Your task to perform on an android device: turn off notifications in google photos Image 0: 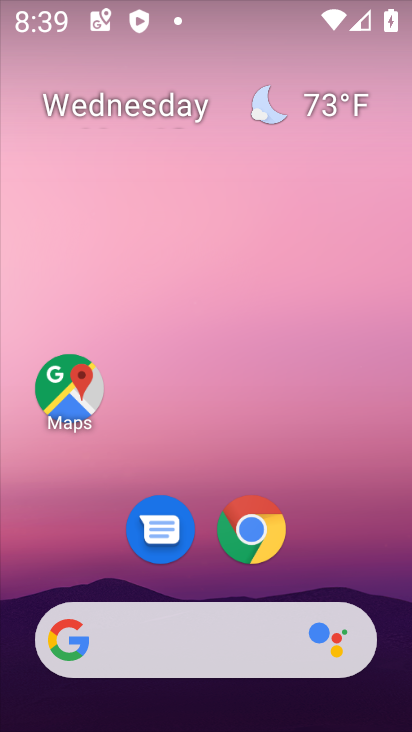
Step 0: drag from (382, 524) to (376, 261)
Your task to perform on an android device: turn off notifications in google photos Image 1: 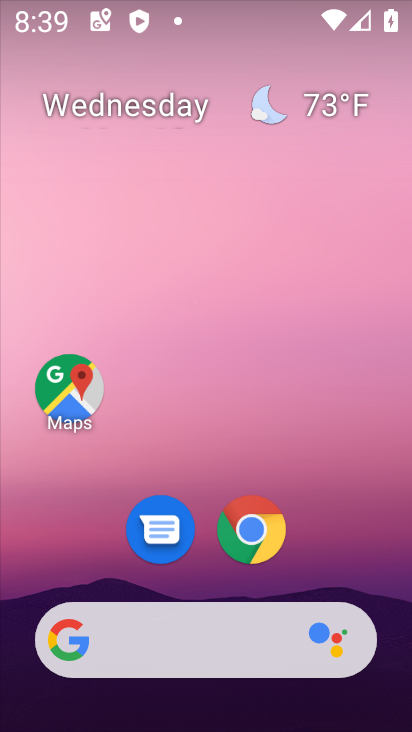
Step 1: drag from (381, 531) to (376, 234)
Your task to perform on an android device: turn off notifications in google photos Image 2: 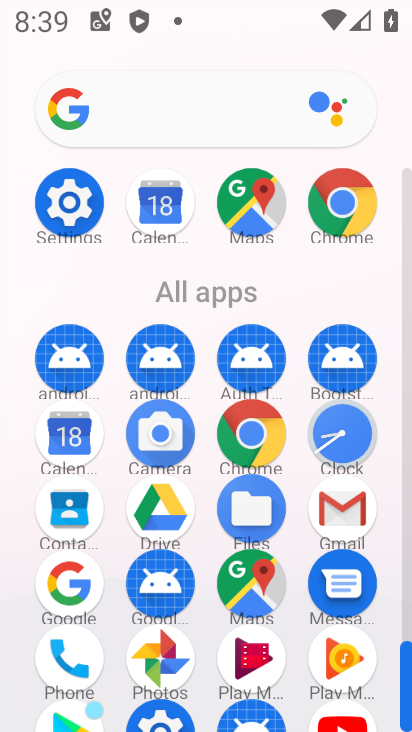
Step 2: drag from (393, 588) to (395, 438)
Your task to perform on an android device: turn off notifications in google photos Image 3: 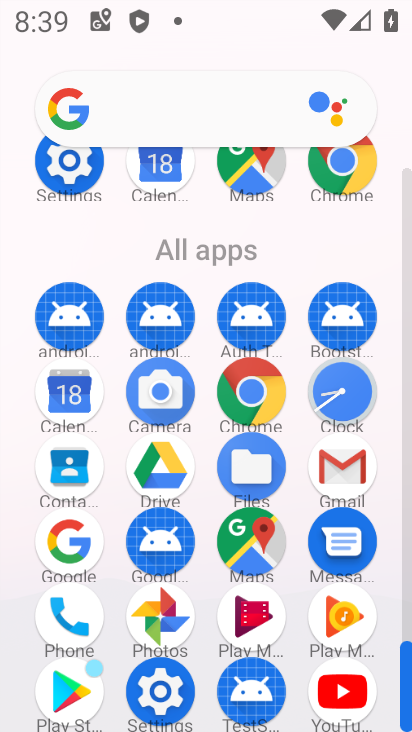
Step 3: click (160, 618)
Your task to perform on an android device: turn off notifications in google photos Image 4: 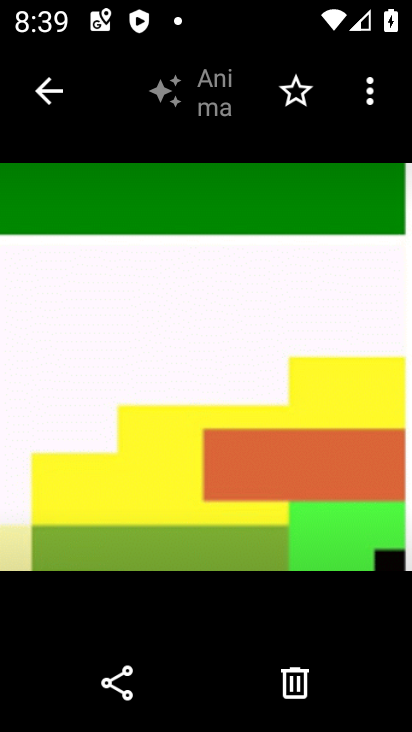
Step 4: click (43, 93)
Your task to perform on an android device: turn off notifications in google photos Image 5: 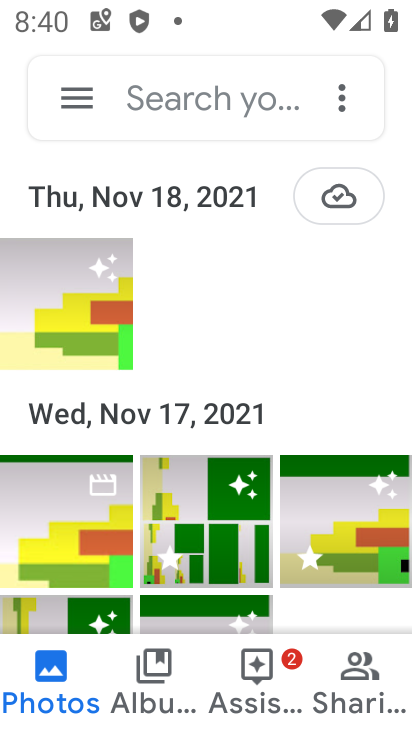
Step 5: click (75, 99)
Your task to perform on an android device: turn off notifications in google photos Image 6: 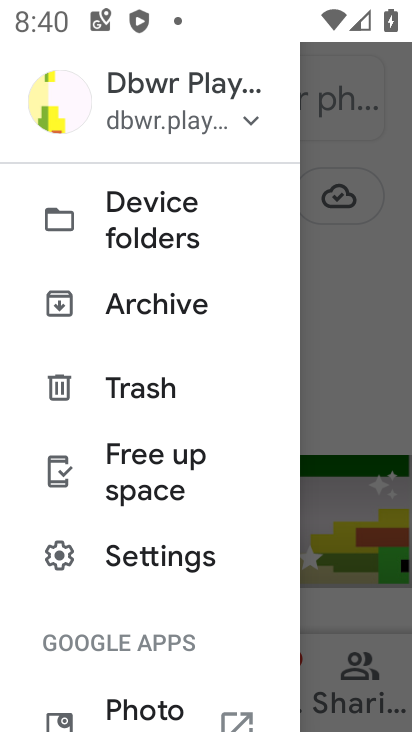
Step 6: drag from (216, 600) to (225, 411)
Your task to perform on an android device: turn off notifications in google photos Image 7: 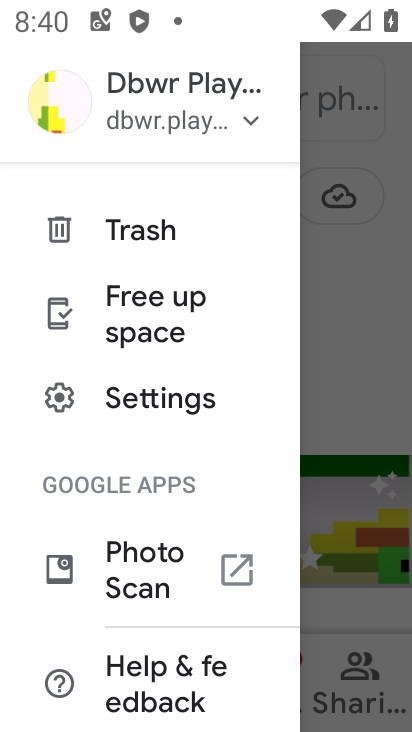
Step 7: drag from (239, 635) to (233, 424)
Your task to perform on an android device: turn off notifications in google photos Image 8: 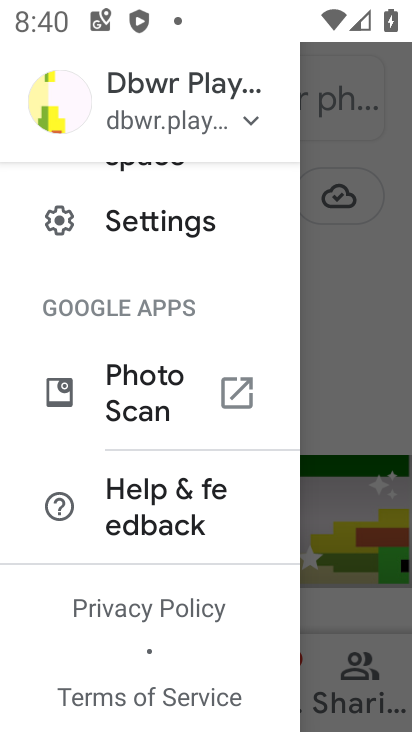
Step 8: drag from (214, 623) to (224, 377)
Your task to perform on an android device: turn off notifications in google photos Image 9: 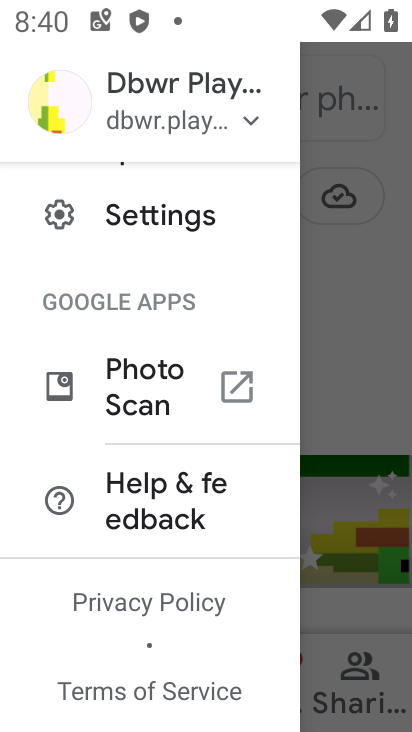
Step 9: drag from (245, 265) to (235, 489)
Your task to perform on an android device: turn off notifications in google photos Image 10: 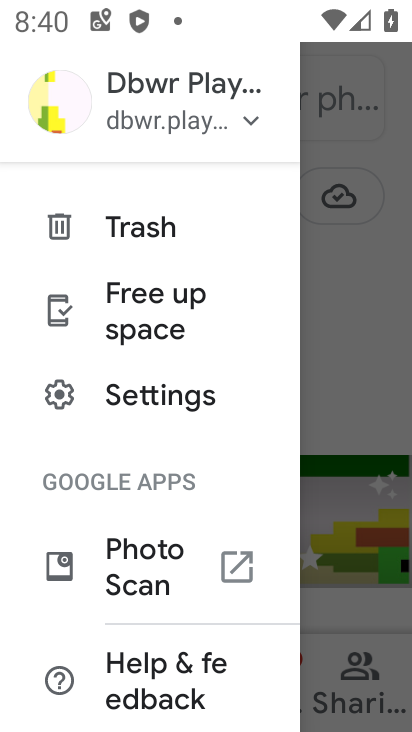
Step 10: drag from (239, 323) to (230, 457)
Your task to perform on an android device: turn off notifications in google photos Image 11: 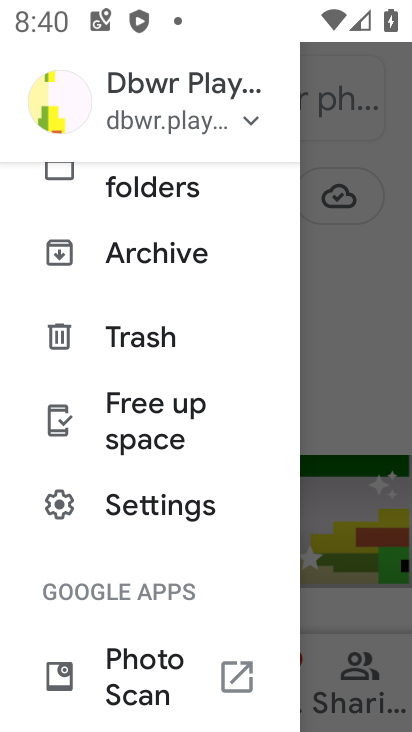
Step 11: click (195, 509)
Your task to perform on an android device: turn off notifications in google photos Image 12: 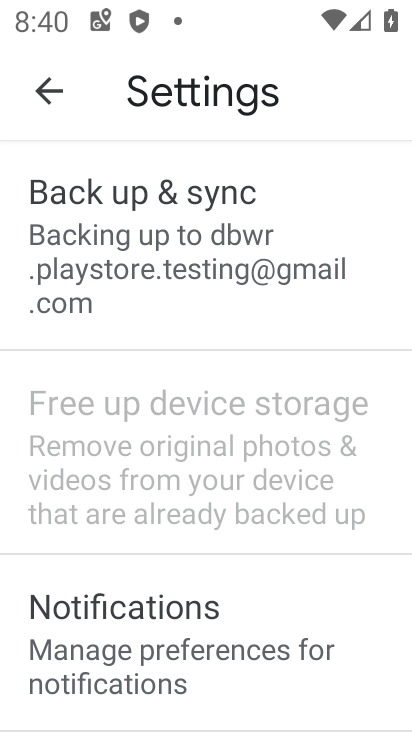
Step 12: drag from (275, 604) to (291, 409)
Your task to perform on an android device: turn off notifications in google photos Image 13: 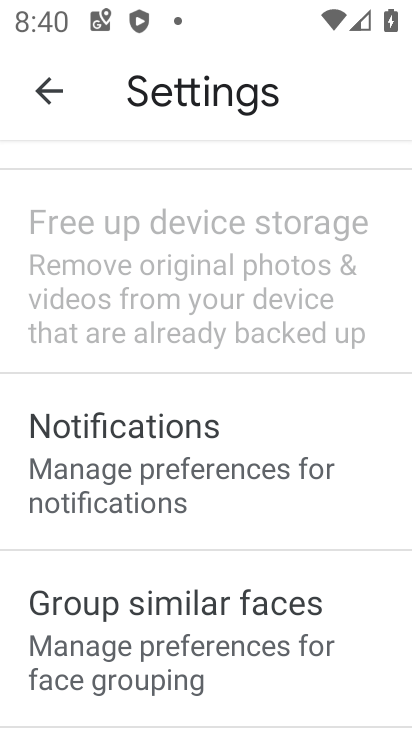
Step 13: click (188, 463)
Your task to perform on an android device: turn off notifications in google photos Image 14: 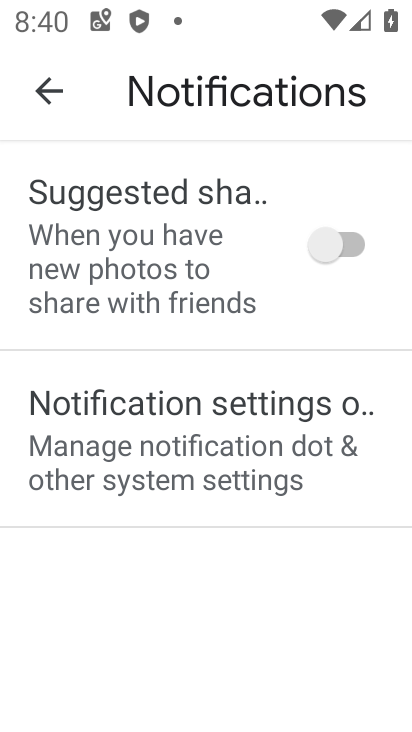
Step 14: click (254, 464)
Your task to perform on an android device: turn off notifications in google photos Image 15: 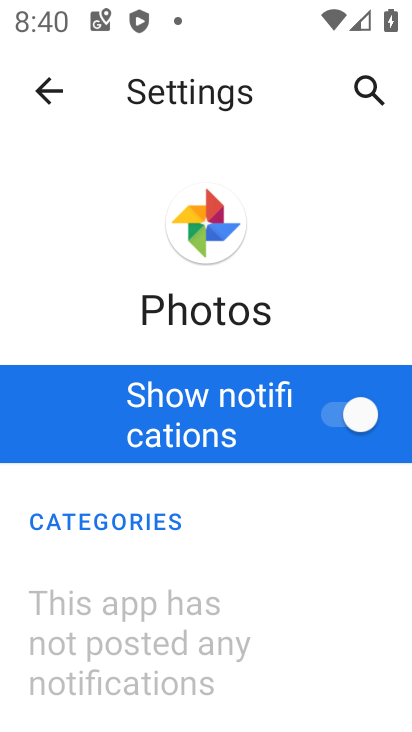
Step 15: drag from (288, 628) to (294, 519)
Your task to perform on an android device: turn off notifications in google photos Image 16: 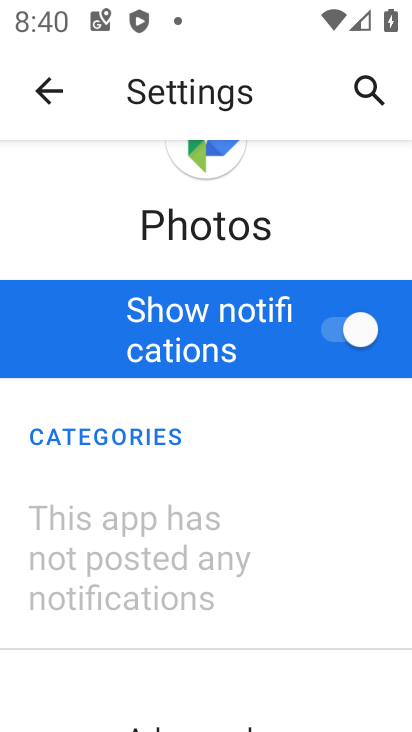
Step 16: click (347, 350)
Your task to perform on an android device: turn off notifications in google photos Image 17: 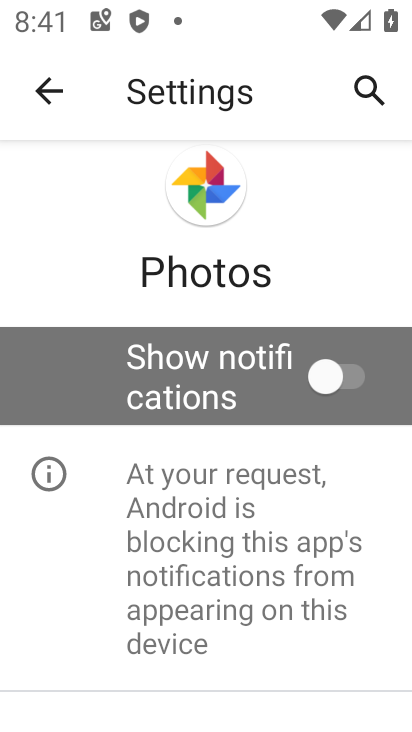
Step 17: task complete